Your task to perform on an android device: turn notification dots on Image 0: 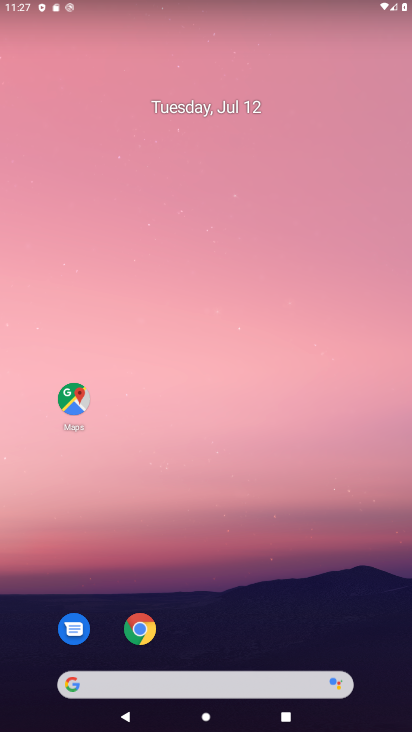
Step 0: drag from (194, 654) to (227, 77)
Your task to perform on an android device: turn notification dots on Image 1: 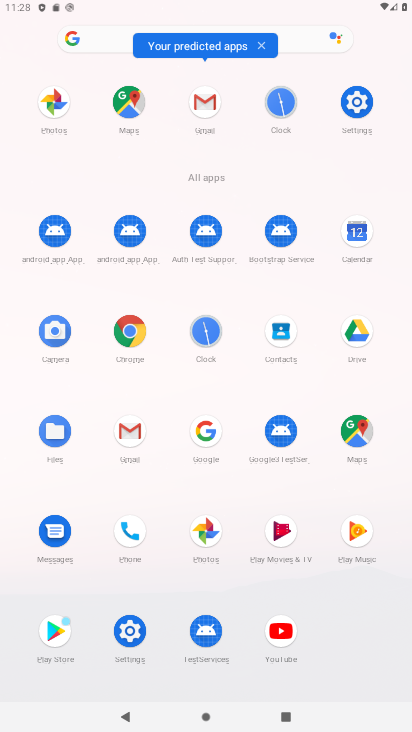
Step 1: click (145, 628)
Your task to perform on an android device: turn notification dots on Image 2: 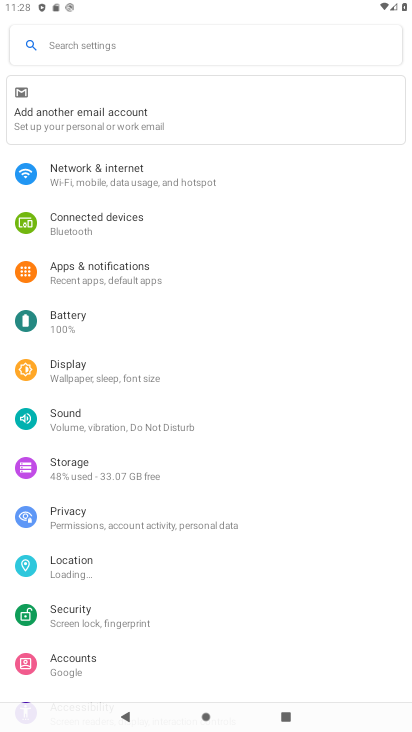
Step 2: click (147, 273)
Your task to perform on an android device: turn notification dots on Image 3: 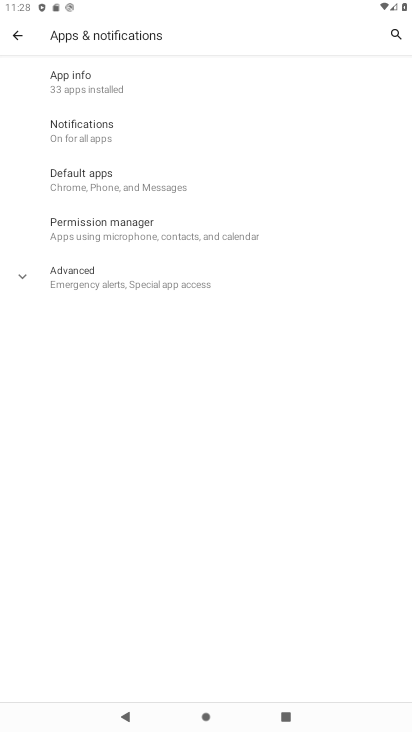
Step 3: click (112, 129)
Your task to perform on an android device: turn notification dots on Image 4: 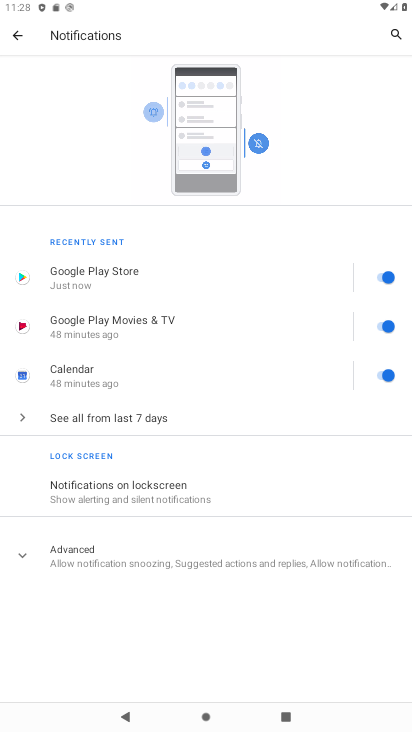
Step 4: click (156, 557)
Your task to perform on an android device: turn notification dots on Image 5: 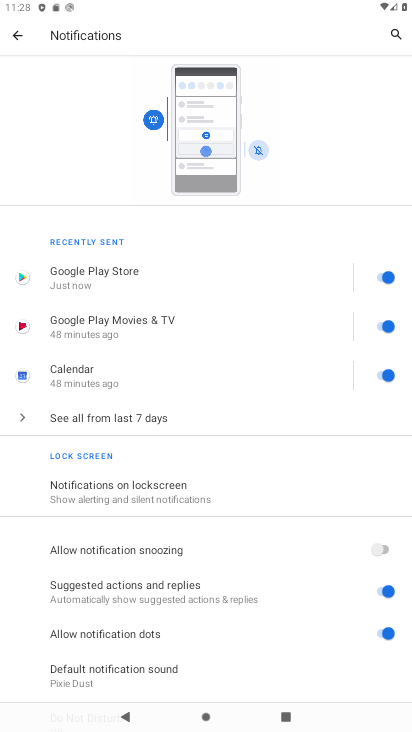
Step 5: task complete